Your task to perform on an android device: What's a good restaurant in Los Angeles? Image 0: 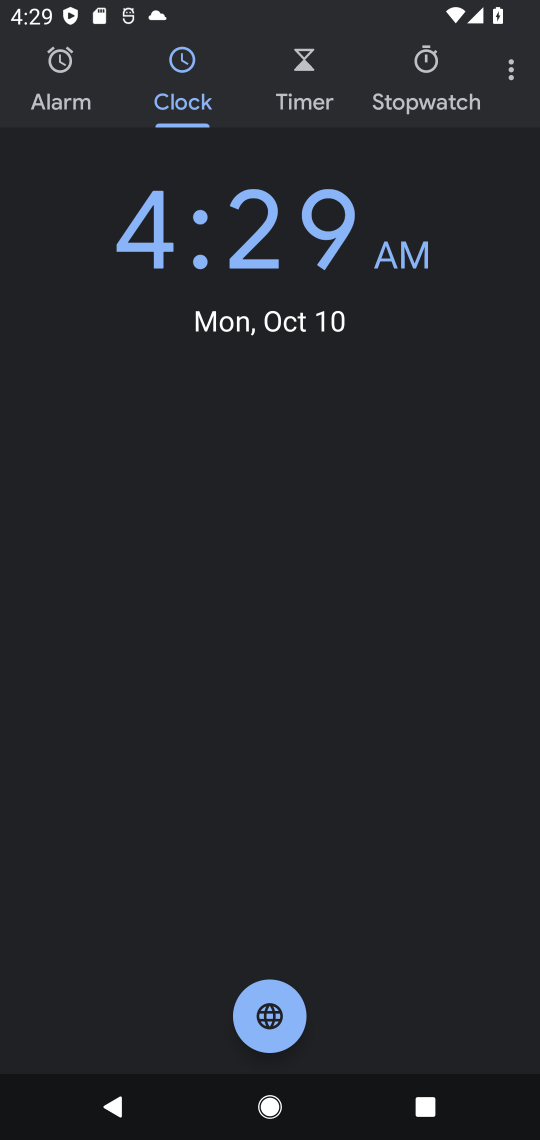
Step 0: press home button
Your task to perform on an android device: What's a good restaurant in Los Angeles? Image 1: 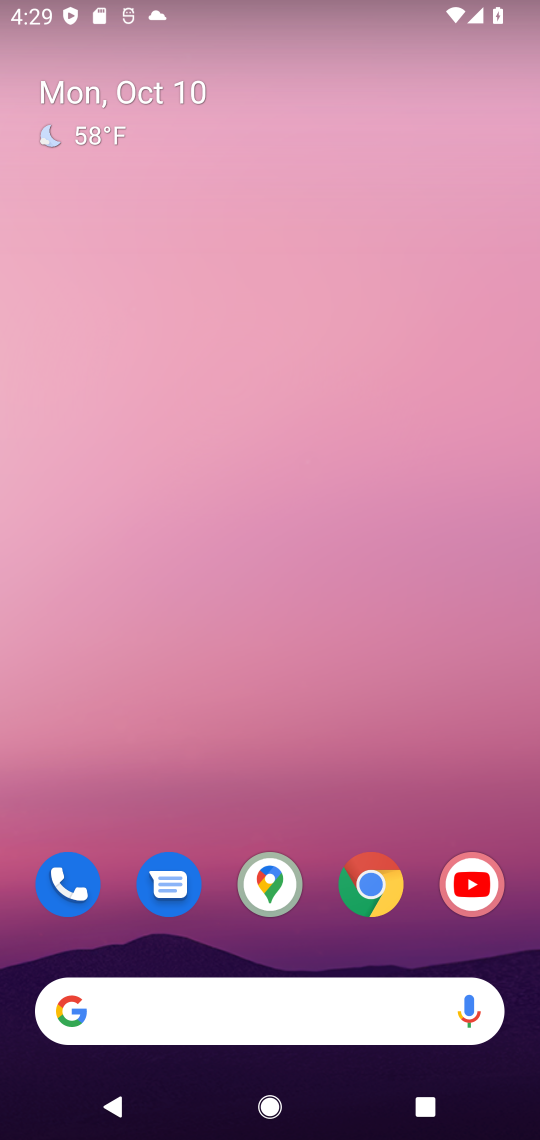
Step 1: click (384, 893)
Your task to perform on an android device: What's a good restaurant in Los Angeles? Image 2: 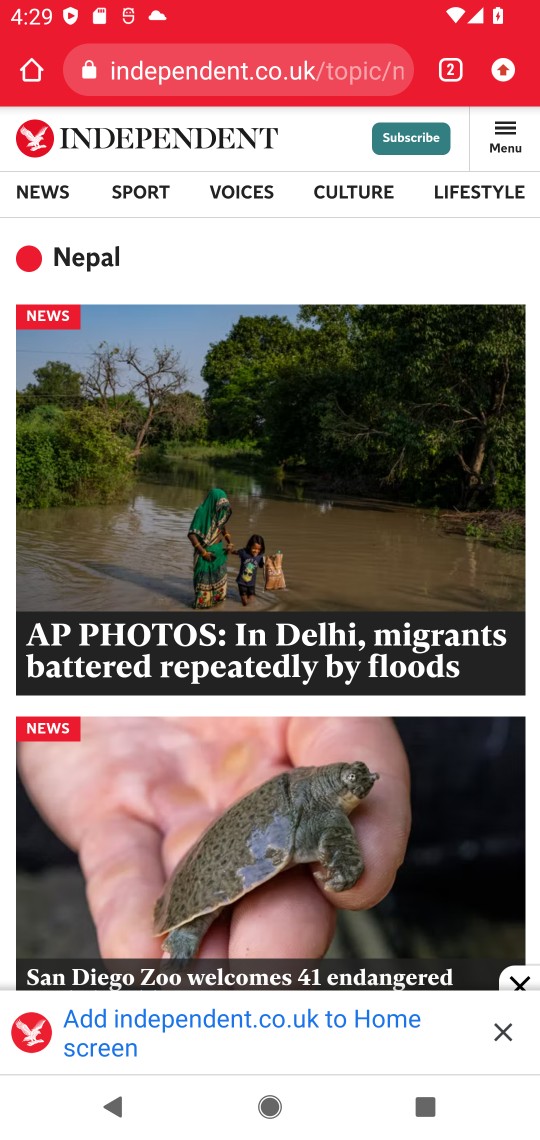
Step 2: click (277, 82)
Your task to perform on an android device: What's a good restaurant in Los Angeles? Image 3: 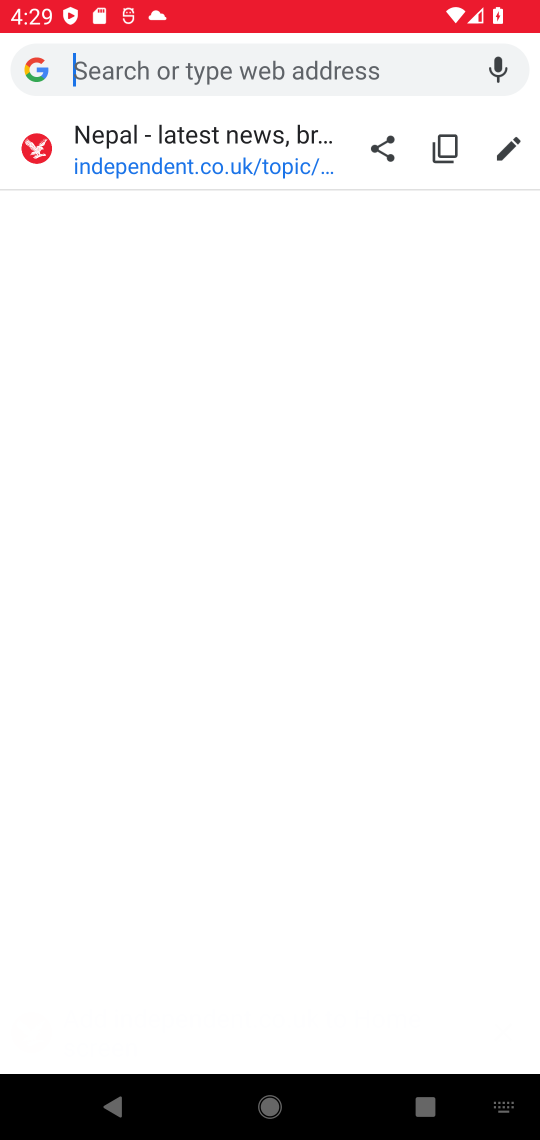
Step 3: type "a good restaurant in Los Angeles"
Your task to perform on an android device: What's a good restaurant in Los Angeles? Image 4: 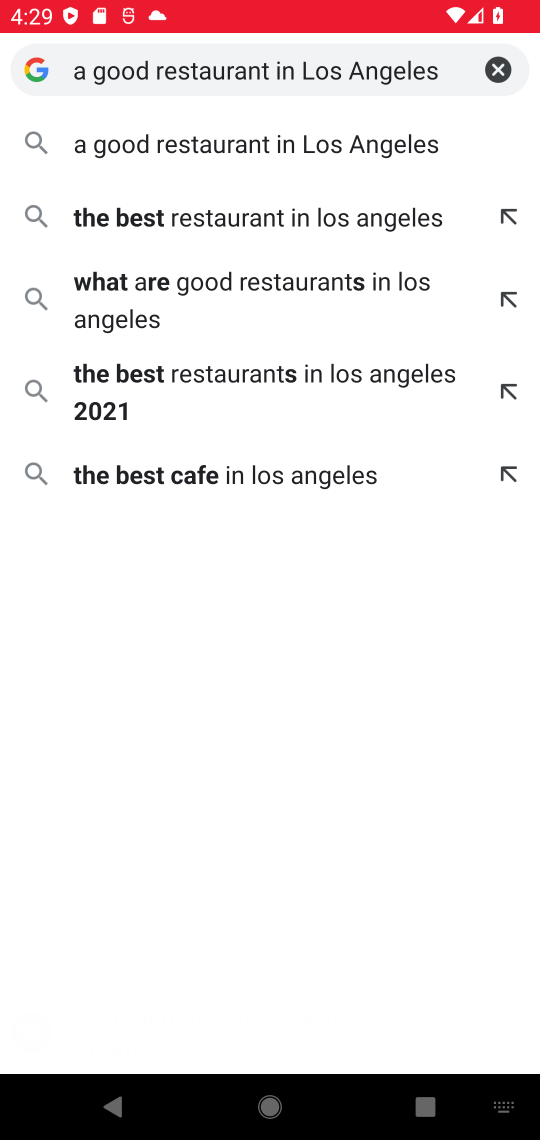
Step 4: click (344, 155)
Your task to perform on an android device: What's a good restaurant in Los Angeles? Image 5: 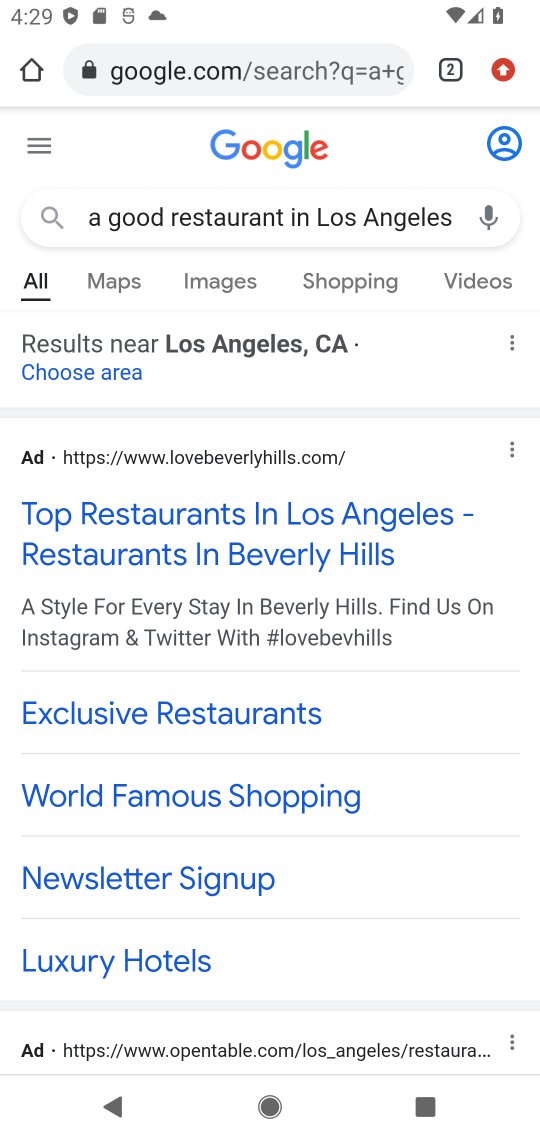
Step 5: click (225, 544)
Your task to perform on an android device: What's a good restaurant in Los Angeles? Image 6: 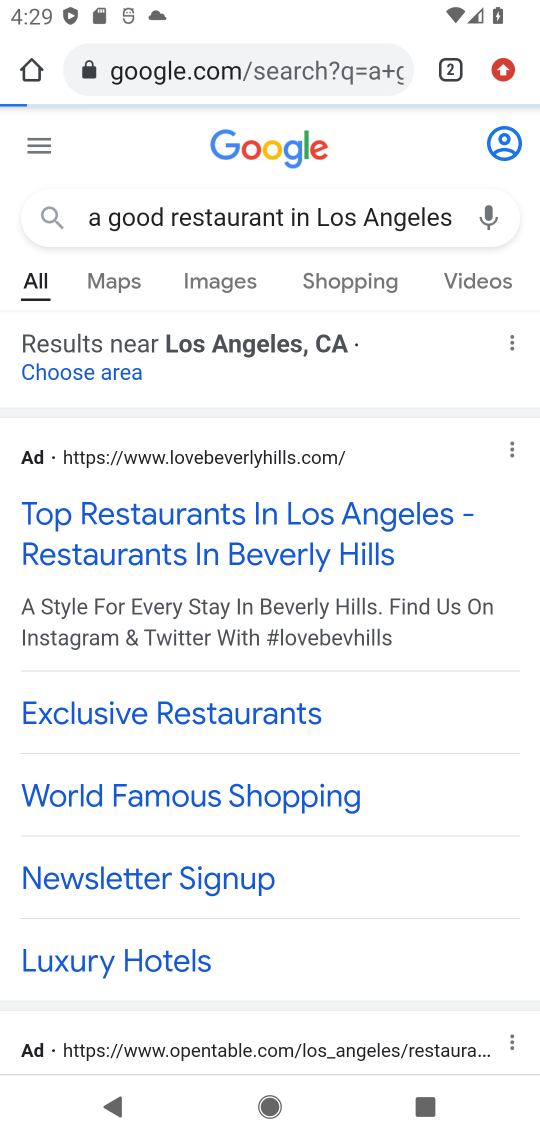
Step 6: click (176, 550)
Your task to perform on an android device: What's a good restaurant in Los Angeles? Image 7: 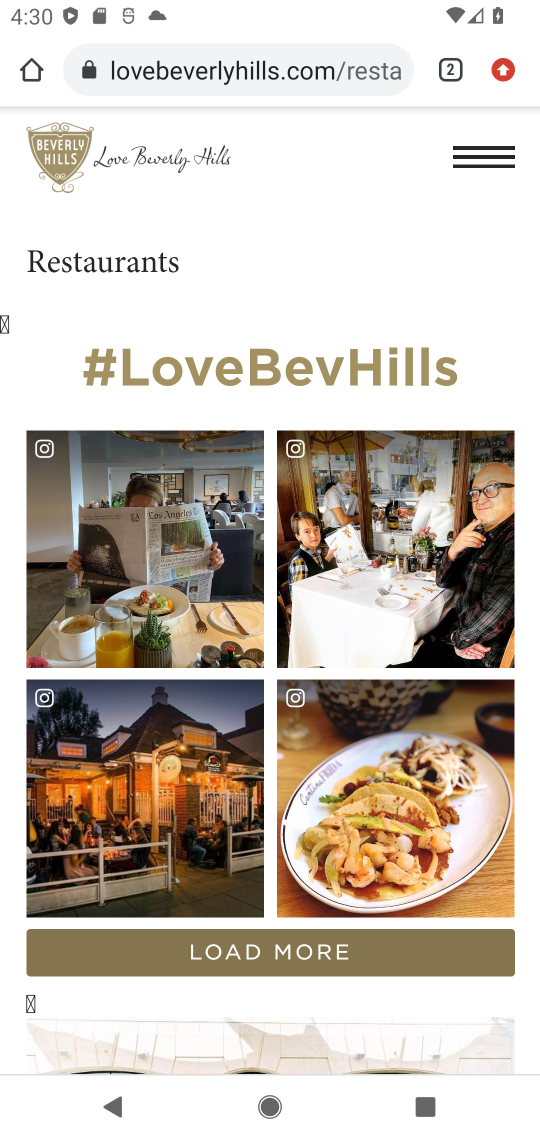
Step 7: task complete